Your task to perform on an android device: Open settings Image 0: 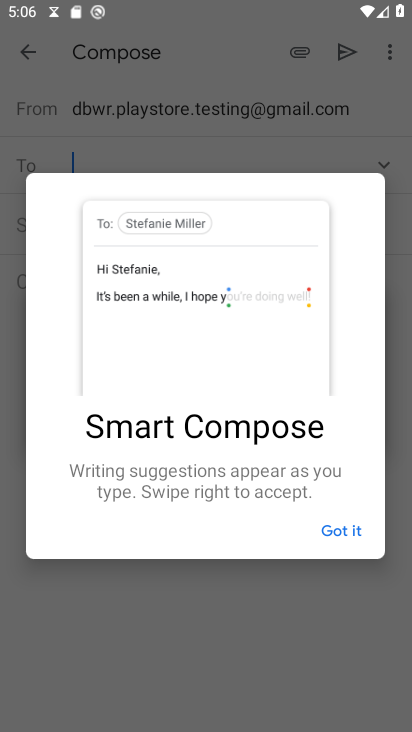
Step 0: press home button
Your task to perform on an android device: Open settings Image 1: 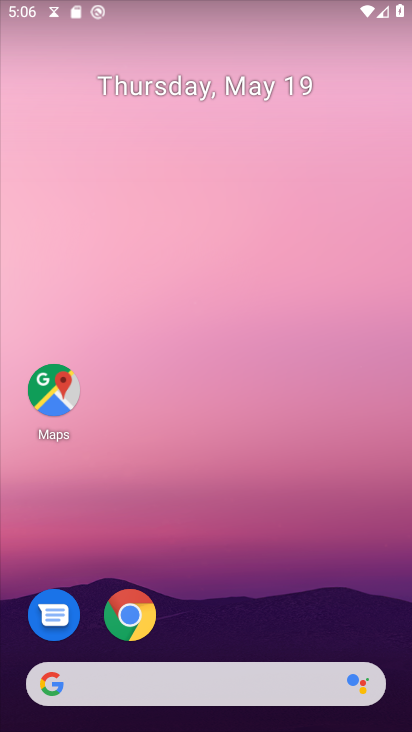
Step 1: drag from (329, 565) to (389, 4)
Your task to perform on an android device: Open settings Image 2: 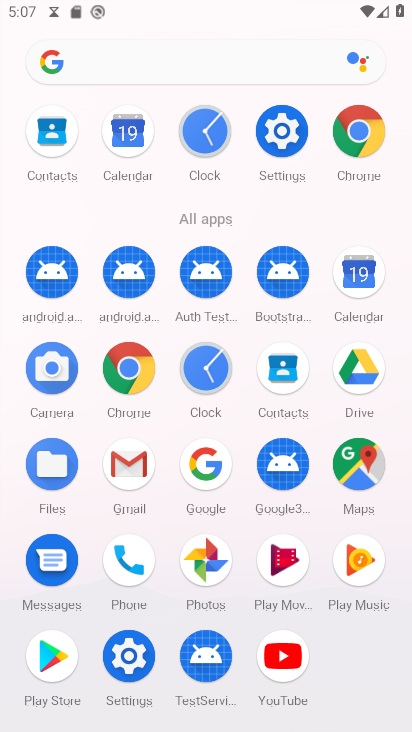
Step 2: click (270, 153)
Your task to perform on an android device: Open settings Image 3: 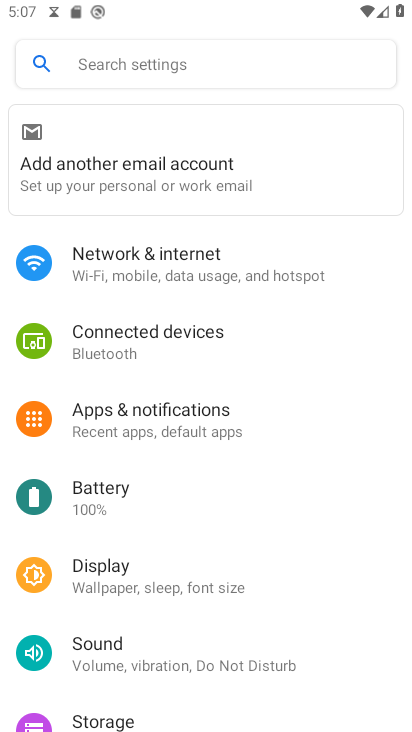
Step 3: task complete